Your task to perform on an android device: toggle show notifications on the lock screen Image 0: 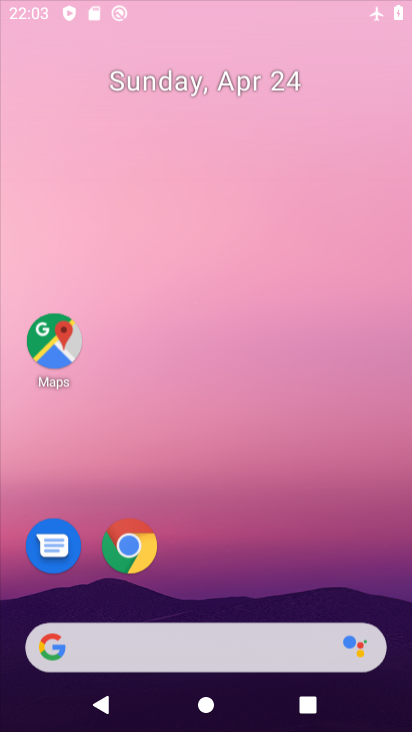
Step 0: click (307, 115)
Your task to perform on an android device: toggle show notifications on the lock screen Image 1: 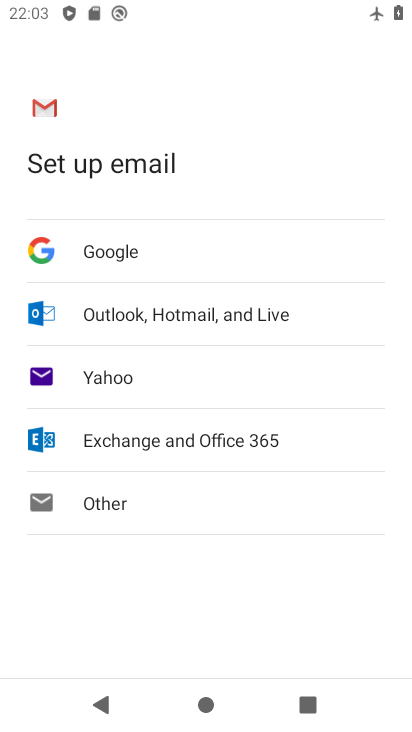
Step 1: press home button
Your task to perform on an android device: toggle show notifications on the lock screen Image 2: 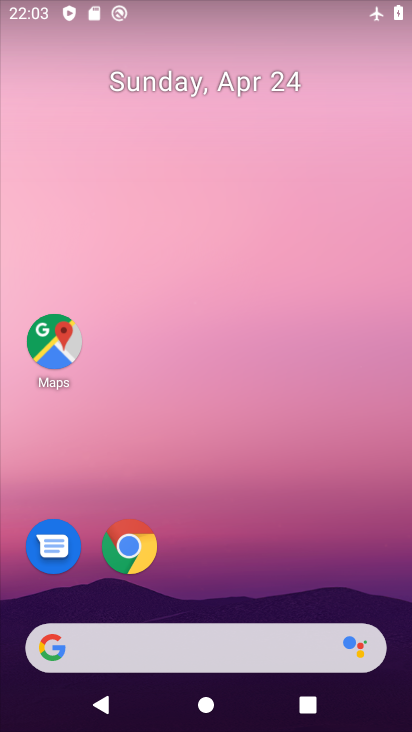
Step 2: drag from (272, 555) to (340, 257)
Your task to perform on an android device: toggle show notifications on the lock screen Image 3: 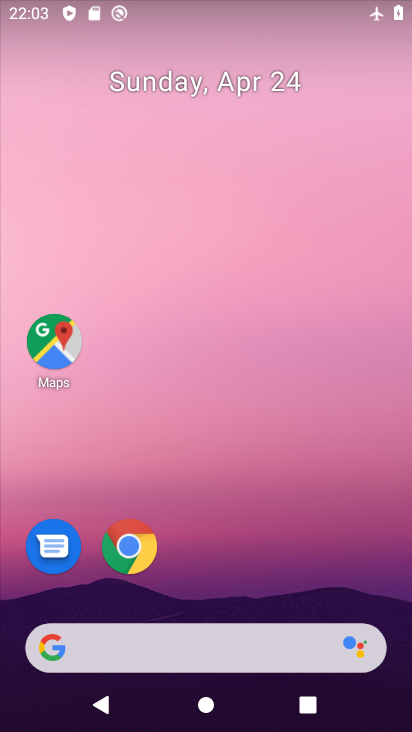
Step 3: drag from (245, 606) to (268, 235)
Your task to perform on an android device: toggle show notifications on the lock screen Image 4: 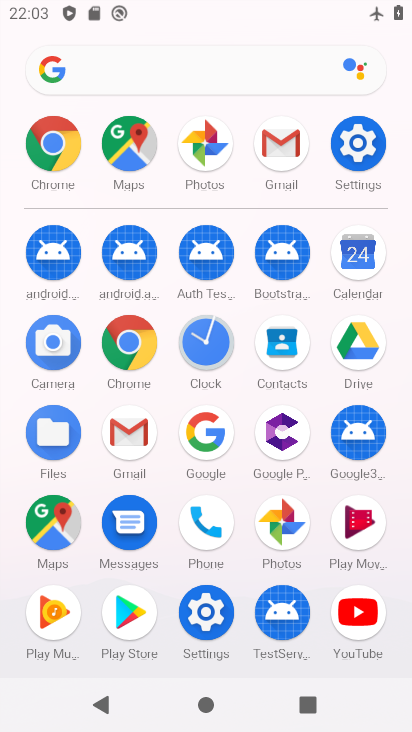
Step 4: click (355, 142)
Your task to perform on an android device: toggle show notifications on the lock screen Image 5: 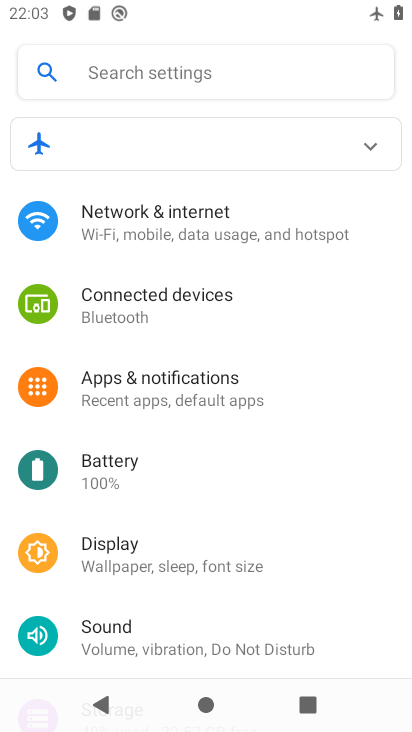
Step 5: click (129, 375)
Your task to perform on an android device: toggle show notifications on the lock screen Image 6: 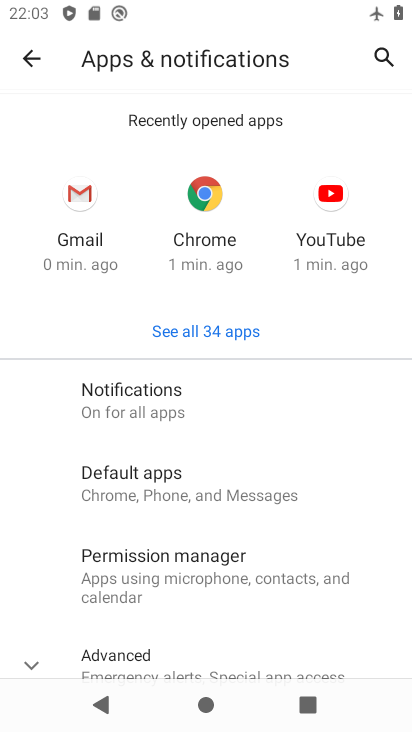
Step 6: click (214, 409)
Your task to perform on an android device: toggle show notifications on the lock screen Image 7: 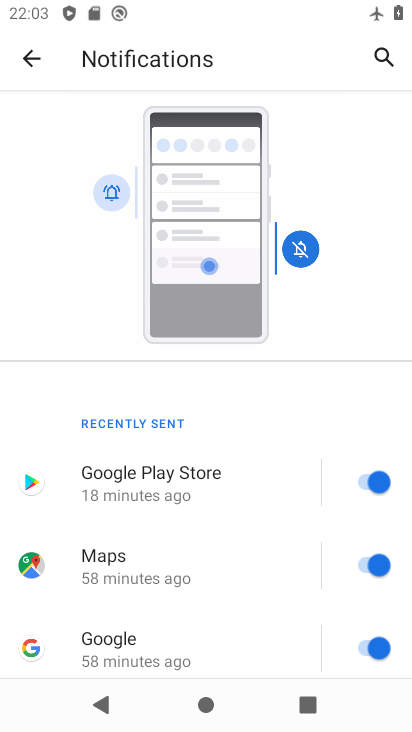
Step 7: drag from (189, 552) to (295, 54)
Your task to perform on an android device: toggle show notifications on the lock screen Image 8: 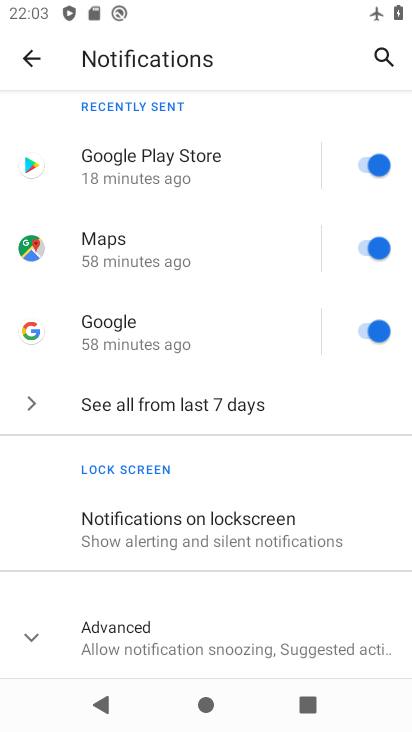
Step 8: click (127, 525)
Your task to perform on an android device: toggle show notifications on the lock screen Image 9: 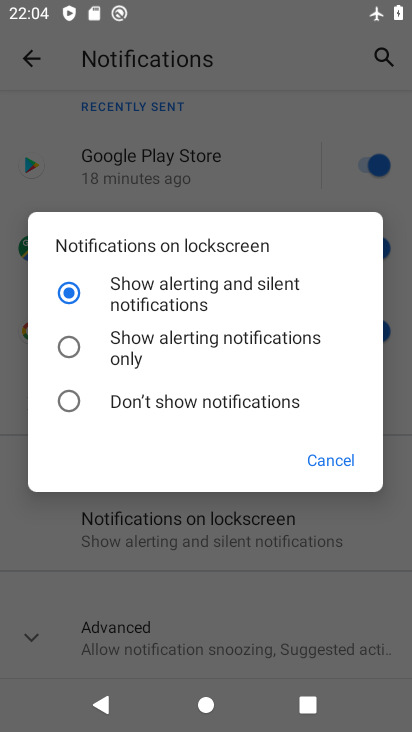
Step 9: click (120, 347)
Your task to perform on an android device: toggle show notifications on the lock screen Image 10: 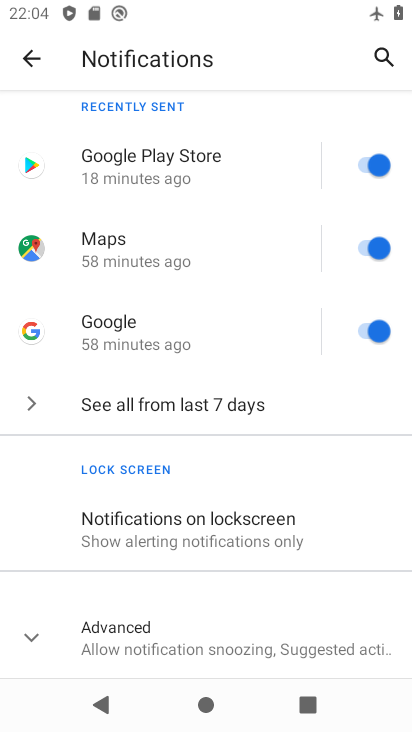
Step 10: task complete